Your task to perform on an android device: When is my next appointment? Image 0: 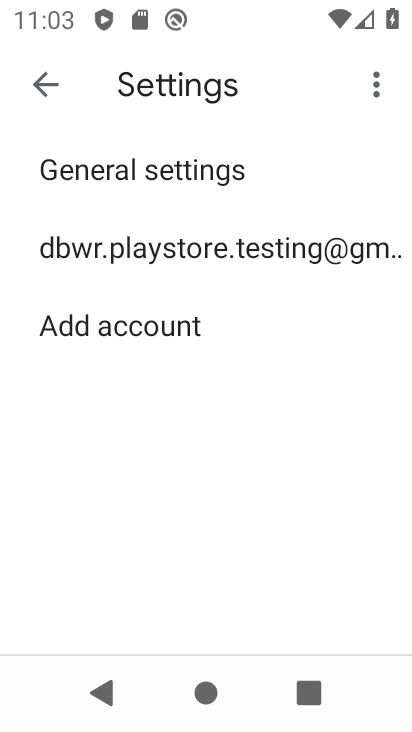
Step 0: press home button
Your task to perform on an android device: When is my next appointment? Image 1: 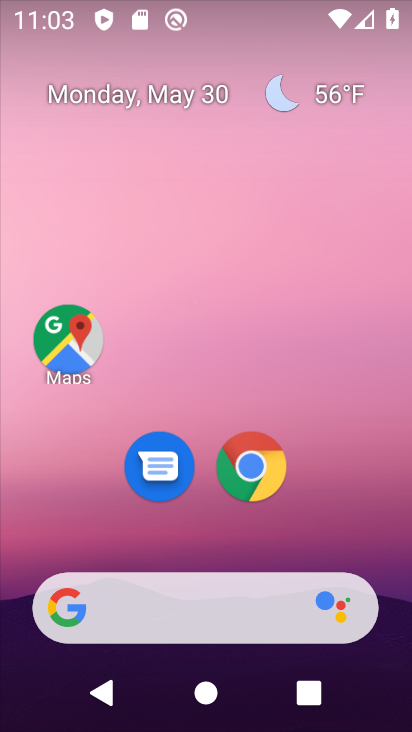
Step 1: drag from (367, 553) to (333, 132)
Your task to perform on an android device: When is my next appointment? Image 2: 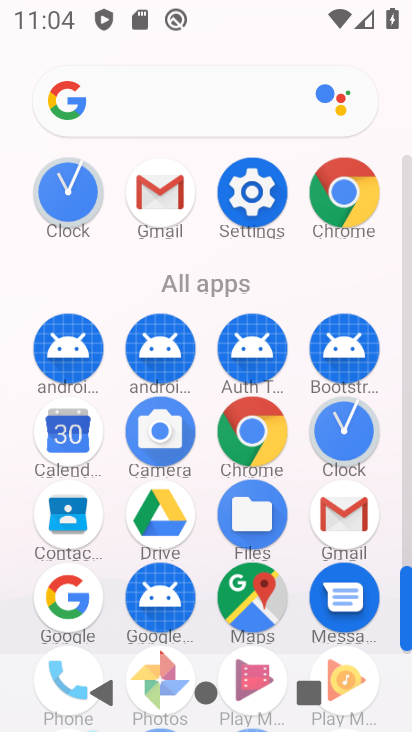
Step 2: click (74, 442)
Your task to perform on an android device: When is my next appointment? Image 3: 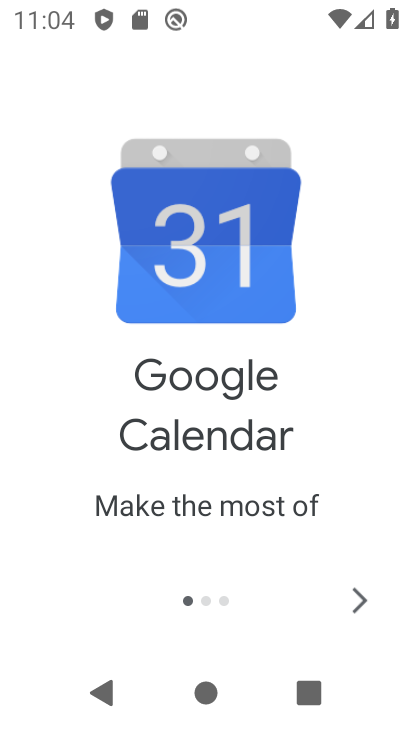
Step 3: click (360, 602)
Your task to perform on an android device: When is my next appointment? Image 4: 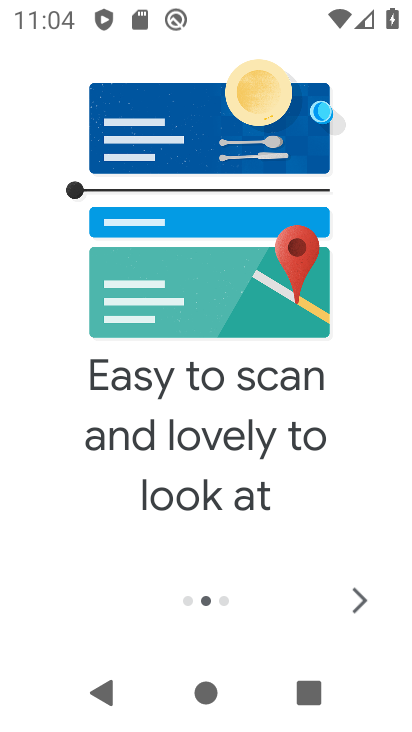
Step 4: click (360, 602)
Your task to perform on an android device: When is my next appointment? Image 5: 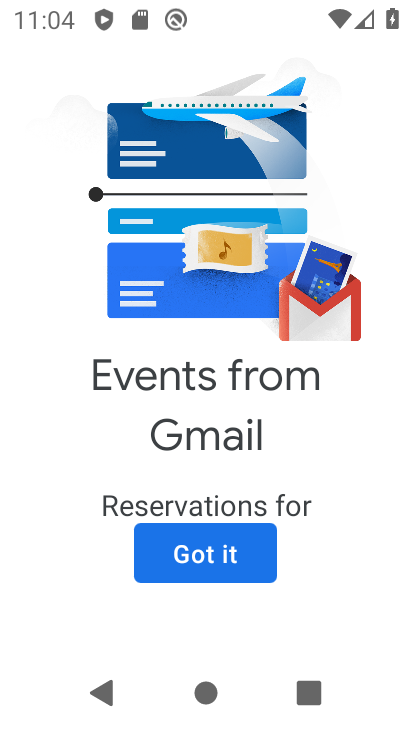
Step 5: click (246, 560)
Your task to perform on an android device: When is my next appointment? Image 6: 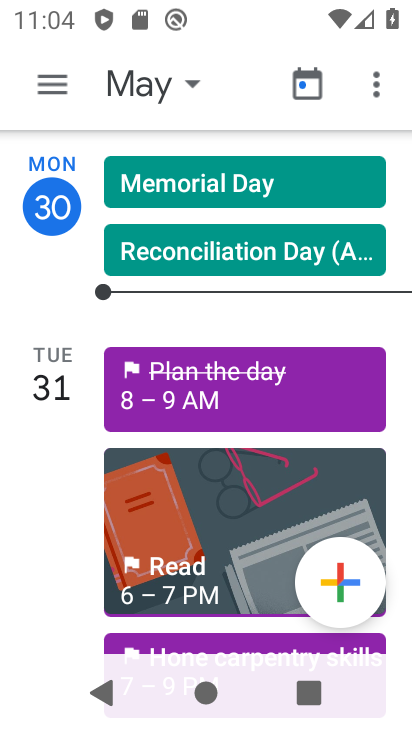
Step 6: drag from (225, 579) to (201, 275)
Your task to perform on an android device: When is my next appointment? Image 7: 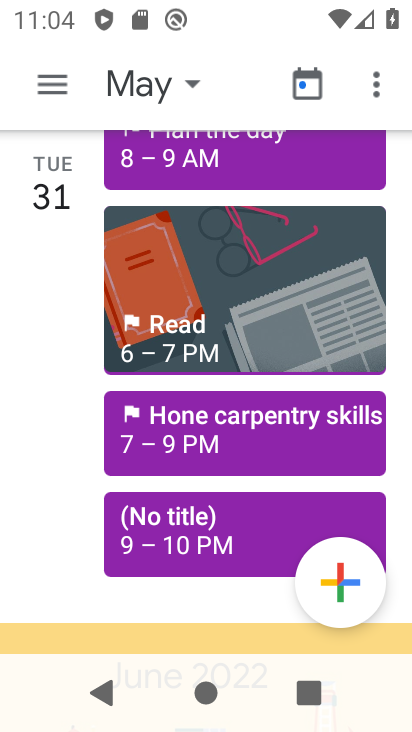
Step 7: drag from (206, 609) to (191, 273)
Your task to perform on an android device: When is my next appointment? Image 8: 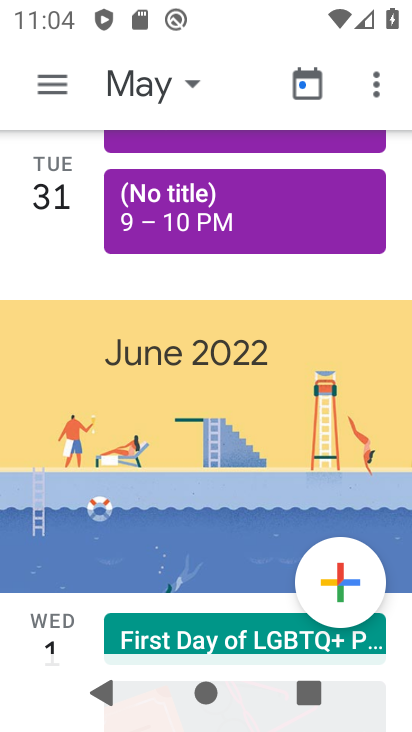
Step 8: drag from (218, 615) to (203, 259)
Your task to perform on an android device: When is my next appointment? Image 9: 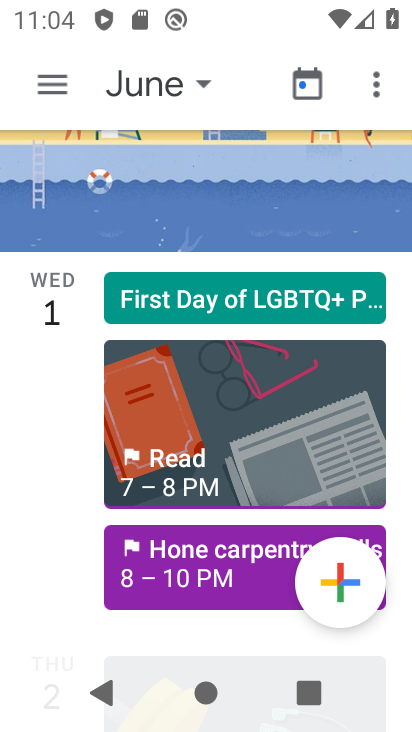
Step 9: drag from (192, 624) to (164, 274)
Your task to perform on an android device: When is my next appointment? Image 10: 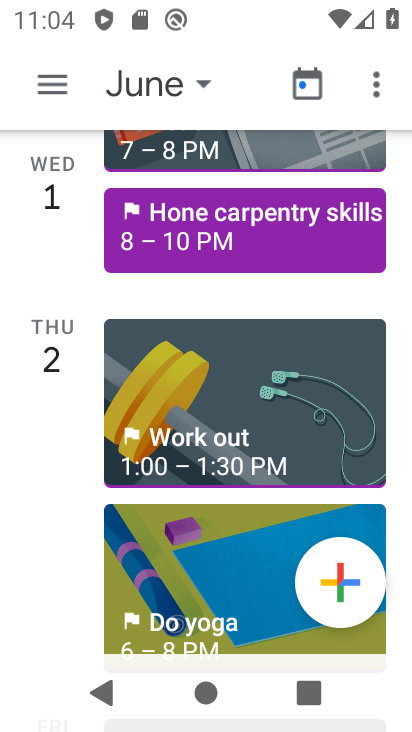
Step 10: drag from (174, 647) to (161, 212)
Your task to perform on an android device: When is my next appointment? Image 11: 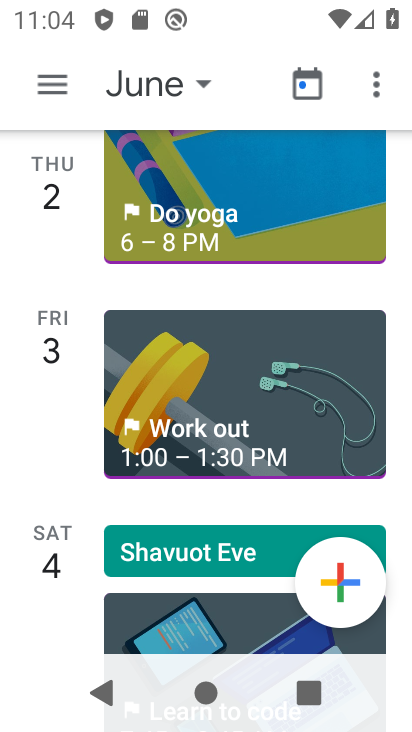
Step 11: drag from (190, 654) to (215, 292)
Your task to perform on an android device: When is my next appointment? Image 12: 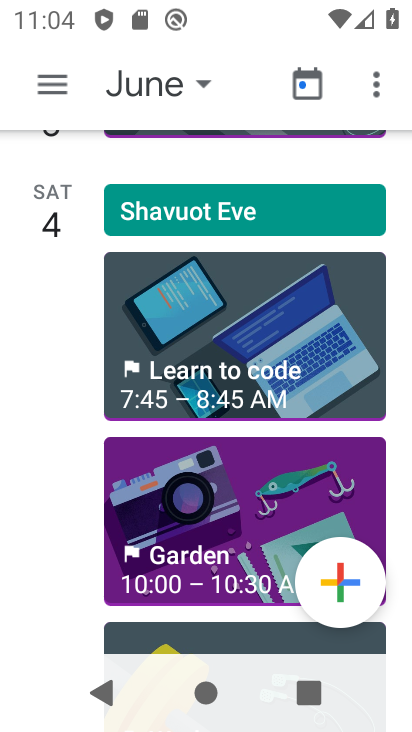
Step 12: drag from (185, 620) to (171, 248)
Your task to perform on an android device: When is my next appointment? Image 13: 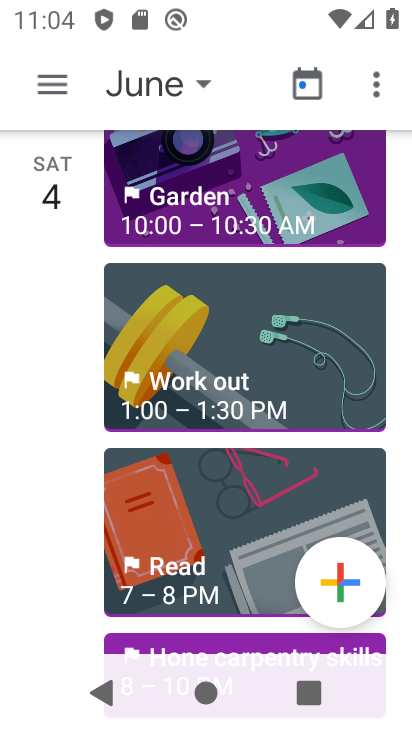
Step 13: drag from (164, 627) to (165, 348)
Your task to perform on an android device: When is my next appointment? Image 14: 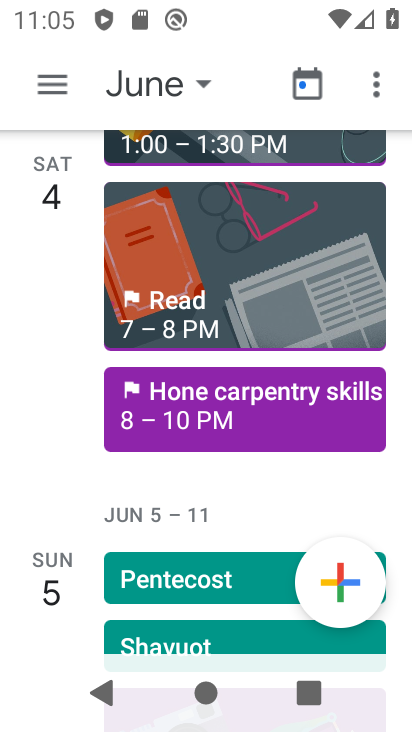
Step 14: drag from (171, 582) to (197, 287)
Your task to perform on an android device: When is my next appointment? Image 15: 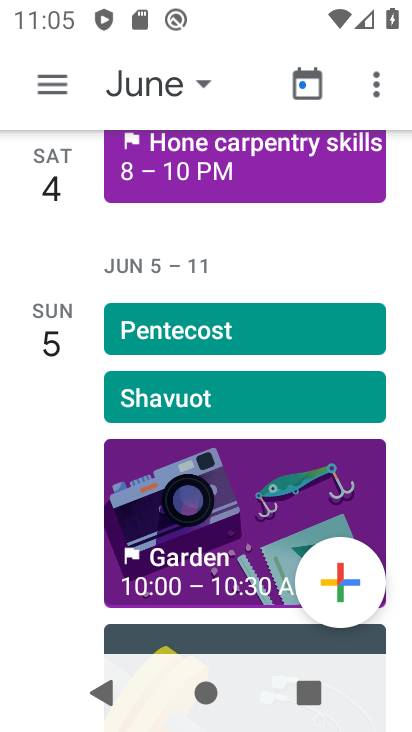
Step 15: drag from (190, 625) to (180, 341)
Your task to perform on an android device: When is my next appointment? Image 16: 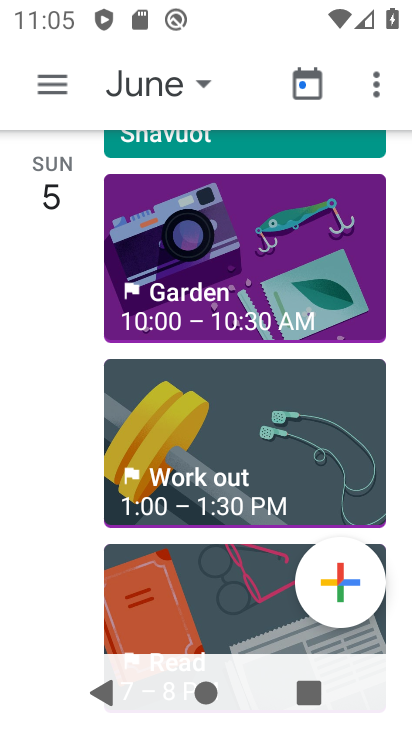
Step 16: drag from (182, 710) to (191, 359)
Your task to perform on an android device: When is my next appointment? Image 17: 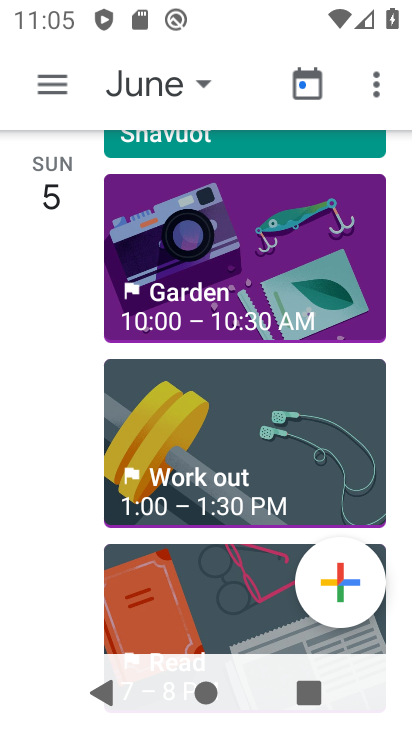
Step 17: drag from (196, 602) to (200, 358)
Your task to perform on an android device: When is my next appointment? Image 18: 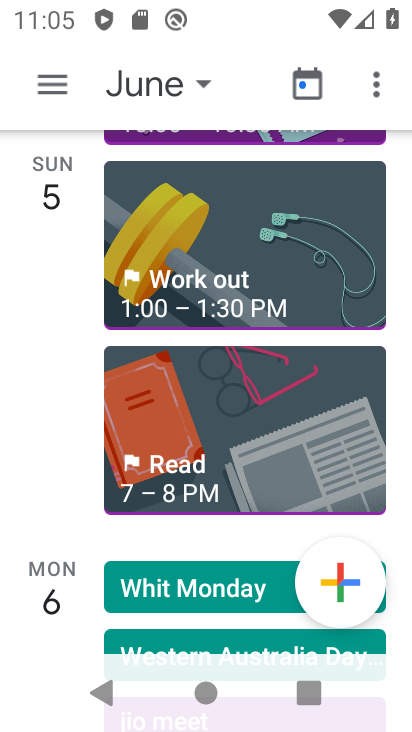
Step 18: drag from (202, 552) to (203, 354)
Your task to perform on an android device: When is my next appointment? Image 19: 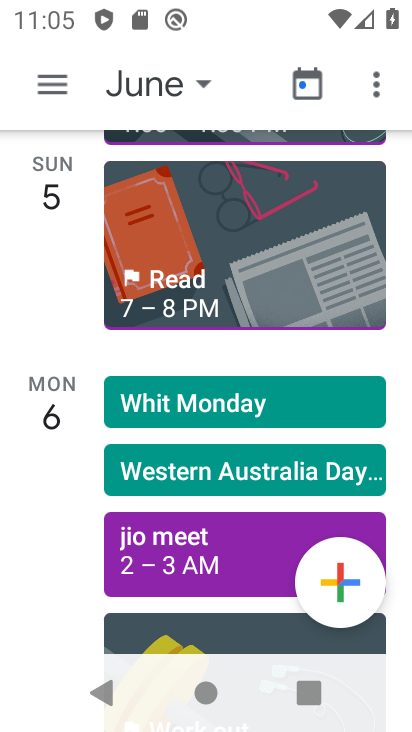
Step 19: click (214, 540)
Your task to perform on an android device: When is my next appointment? Image 20: 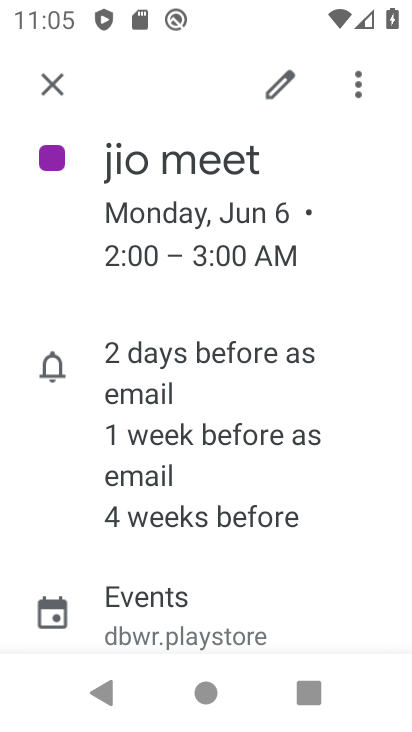
Step 20: task complete